Your task to perform on an android device: change the clock display to digital Image 0: 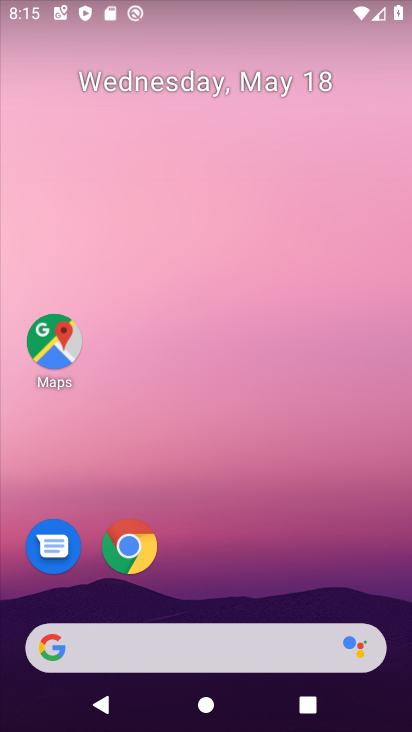
Step 0: drag from (265, 670) to (315, 198)
Your task to perform on an android device: change the clock display to digital Image 1: 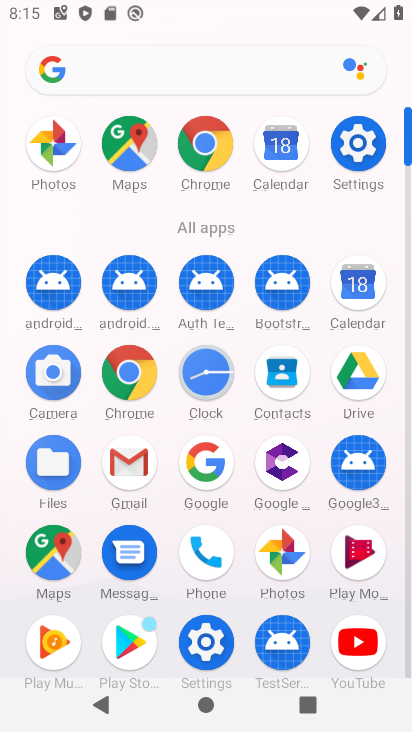
Step 1: click (198, 380)
Your task to perform on an android device: change the clock display to digital Image 2: 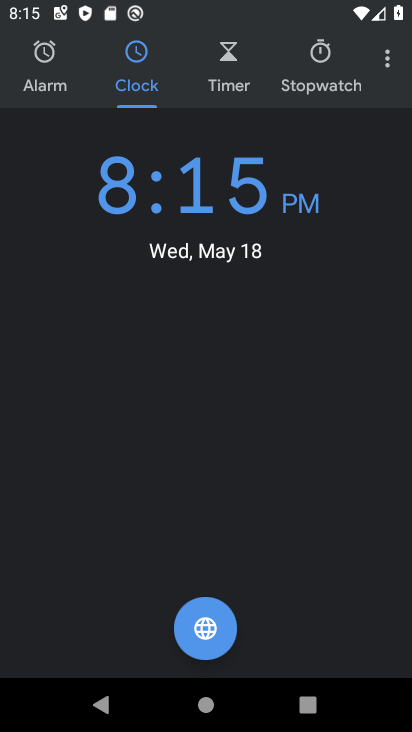
Step 2: click (381, 61)
Your task to perform on an android device: change the clock display to digital Image 3: 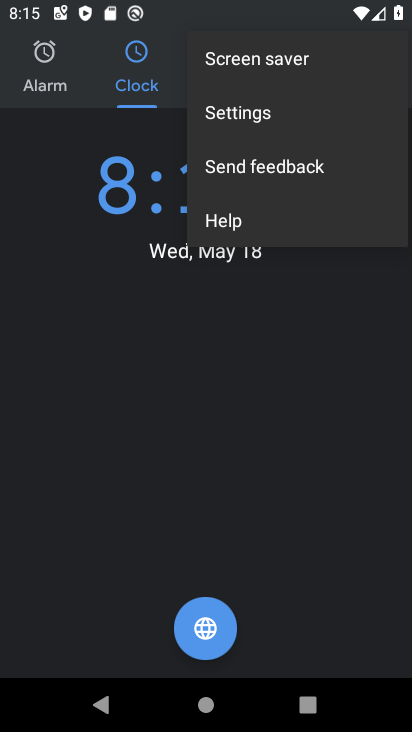
Step 3: click (250, 120)
Your task to perform on an android device: change the clock display to digital Image 4: 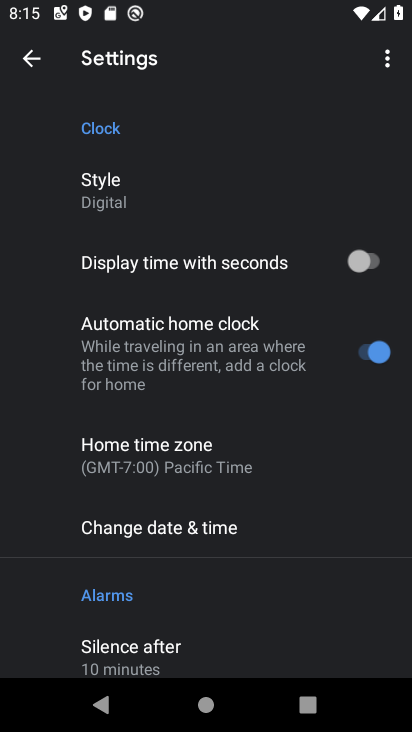
Step 4: click (164, 205)
Your task to perform on an android device: change the clock display to digital Image 5: 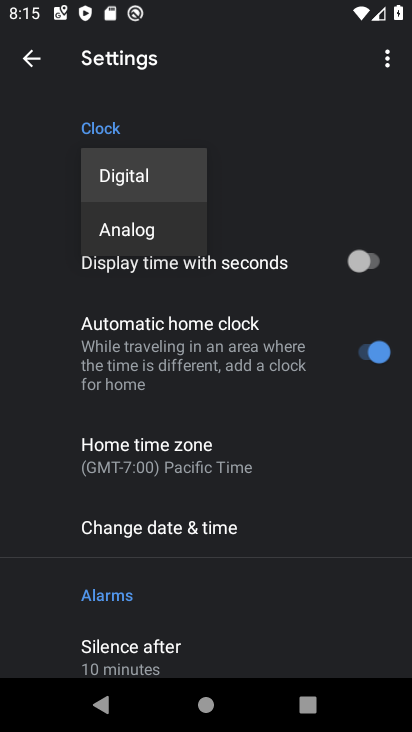
Step 5: click (147, 187)
Your task to perform on an android device: change the clock display to digital Image 6: 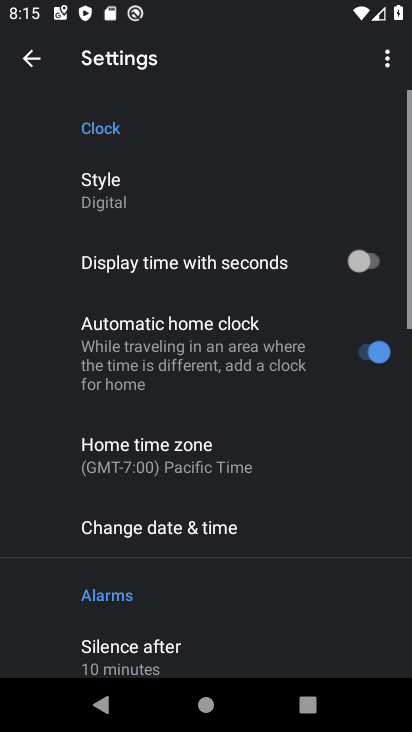
Step 6: task complete